Your task to perform on an android device: turn on bluetooth scan Image 0: 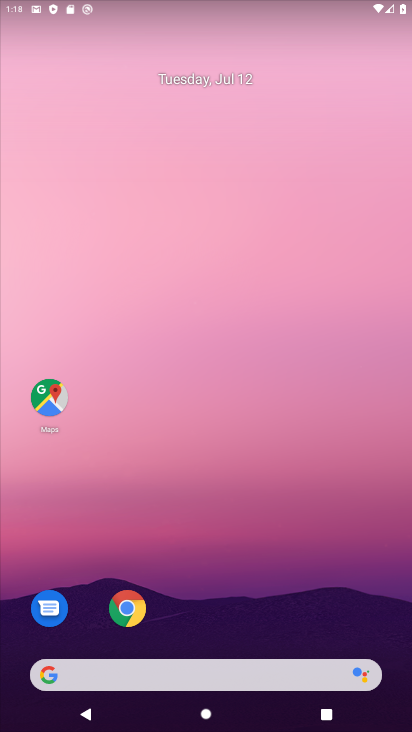
Step 0: drag from (252, 627) to (273, 176)
Your task to perform on an android device: turn on bluetooth scan Image 1: 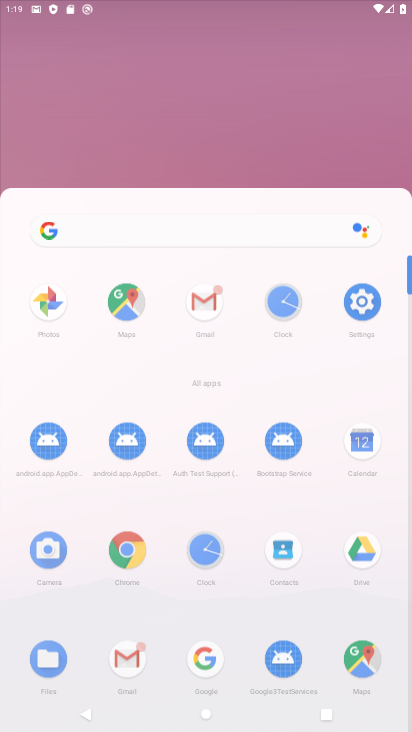
Step 1: drag from (367, 628) to (341, 313)
Your task to perform on an android device: turn on bluetooth scan Image 2: 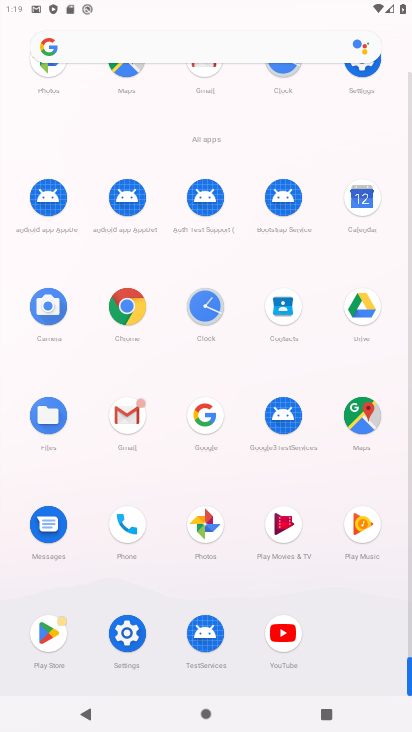
Step 2: click (121, 644)
Your task to perform on an android device: turn on bluetooth scan Image 3: 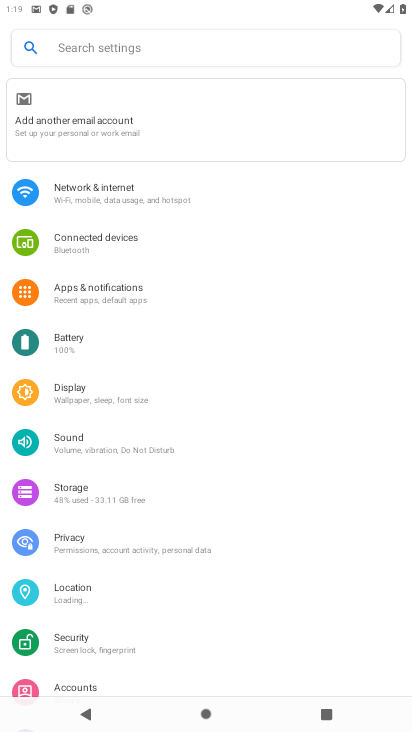
Step 3: click (135, 595)
Your task to perform on an android device: turn on bluetooth scan Image 4: 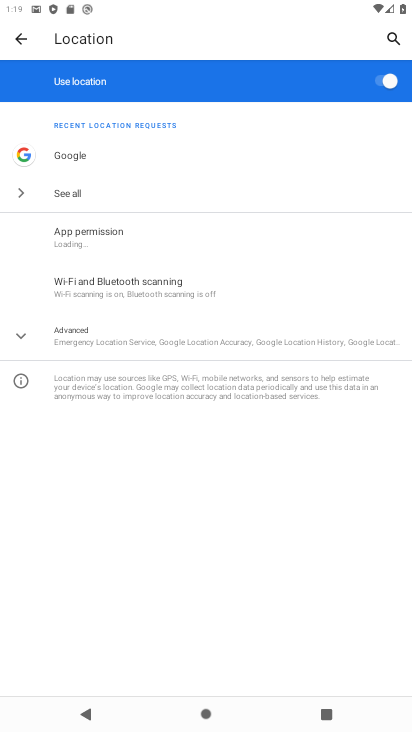
Step 4: click (201, 283)
Your task to perform on an android device: turn on bluetooth scan Image 5: 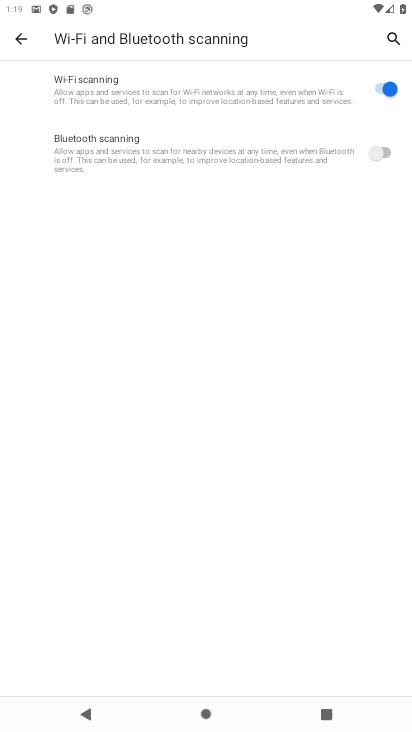
Step 5: click (376, 159)
Your task to perform on an android device: turn on bluetooth scan Image 6: 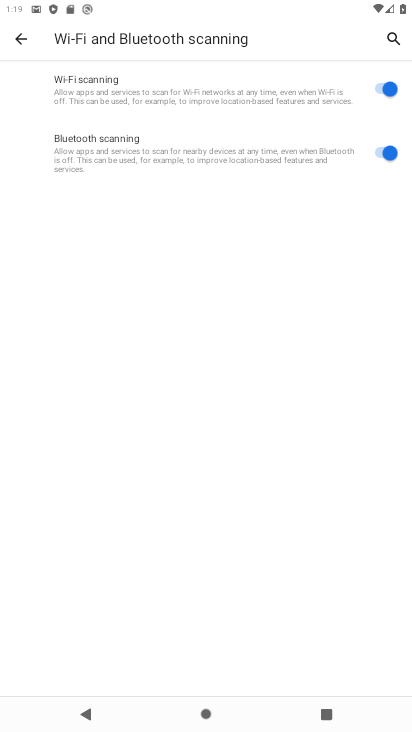
Step 6: task complete